Your task to perform on an android device: What's the weather going to be this weekend? Image 0: 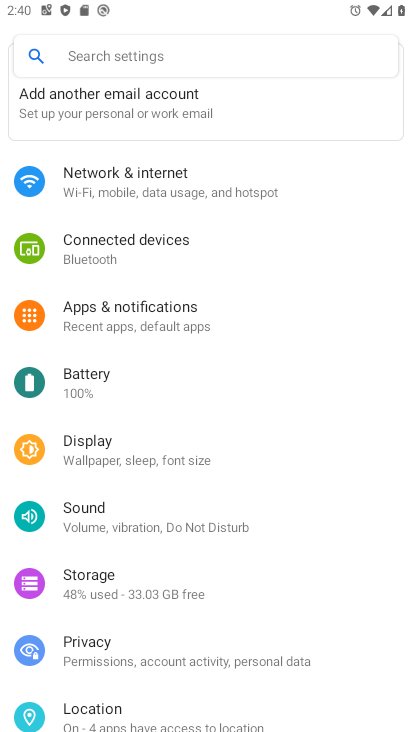
Step 0: press home button
Your task to perform on an android device: What's the weather going to be this weekend? Image 1: 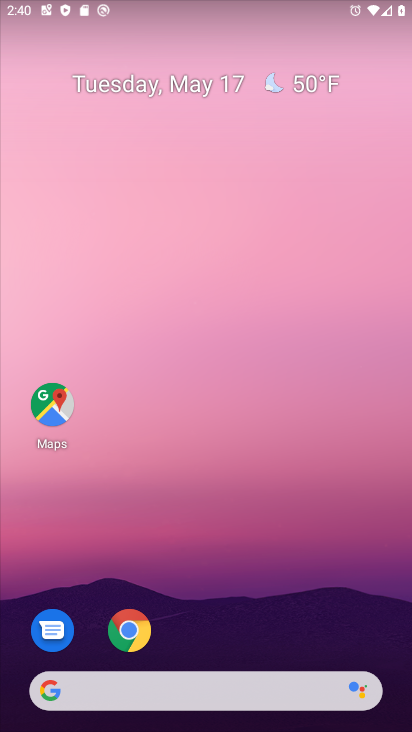
Step 1: click (171, 336)
Your task to perform on an android device: What's the weather going to be this weekend? Image 2: 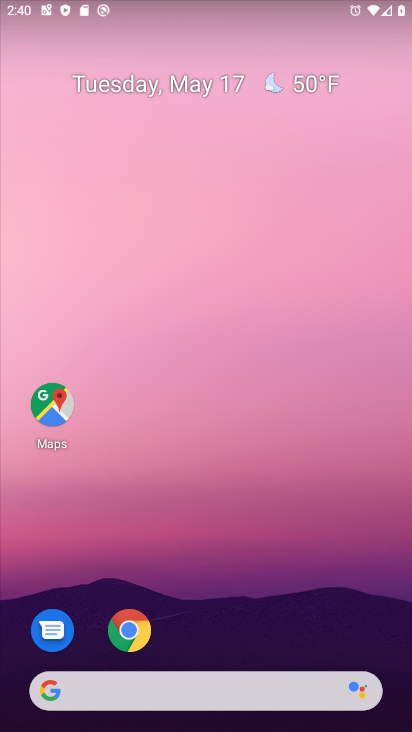
Step 2: drag from (189, 667) to (159, 338)
Your task to perform on an android device: What's the weather going to be this weekend? Image 3: 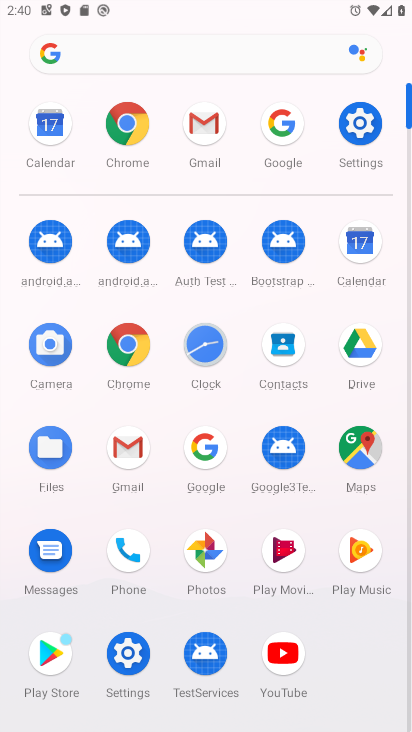
Step 3: click (186, 452)
Your task to perform on an android device: What's the weather going to be this weekend? Image 4: 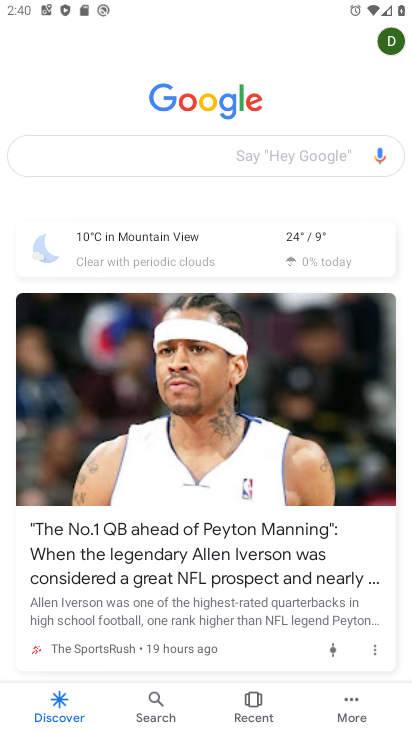
Step 4: click (128, 157)
Your task to perform on an android device: What's the weather going to be this weekend? Image 5: 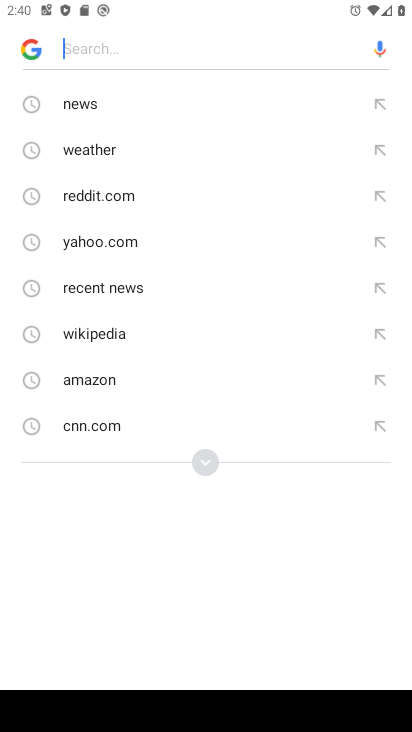
Step 5: click (205, 454)
Your task to perform on an android device: What's the weather going to be this weekend? Image 6: 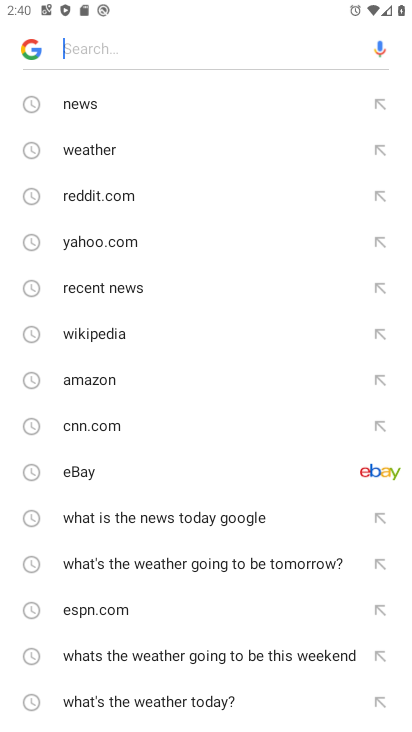
Step 6: click (239, 658)
Your task to perform on an android device: What's the weather going to be this weekend? Image 7: 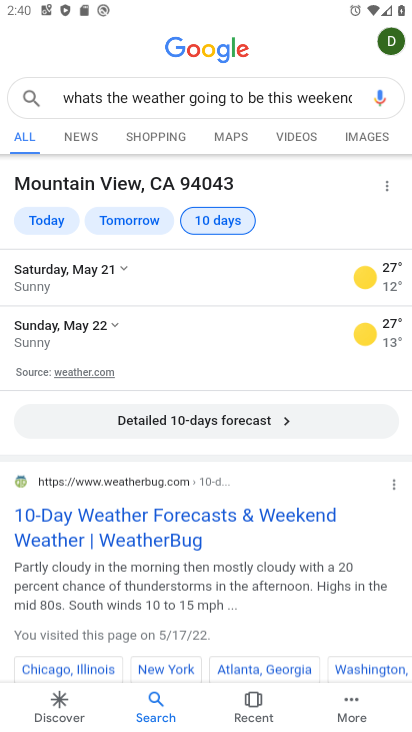
Step 7: click (173, 420)
Your task to perform on an android device: What's the weather going to be this weekend? Image 8: 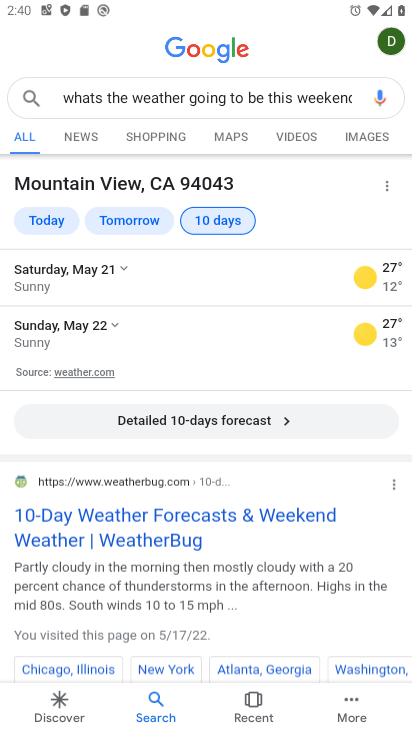
Step 8: click (166, 419)
Your task to perform on an android device: What's the weather going to be this weekend? Image 9: 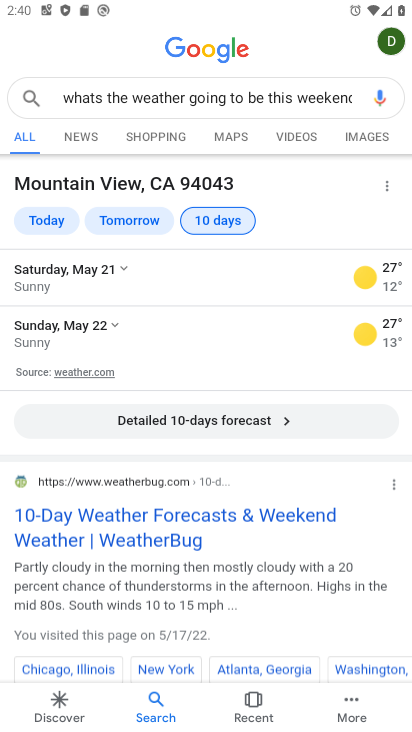
Step 9: click (221, 425)
Your task to perform on an android device: What's the weather going to be this weekend? Image 10: 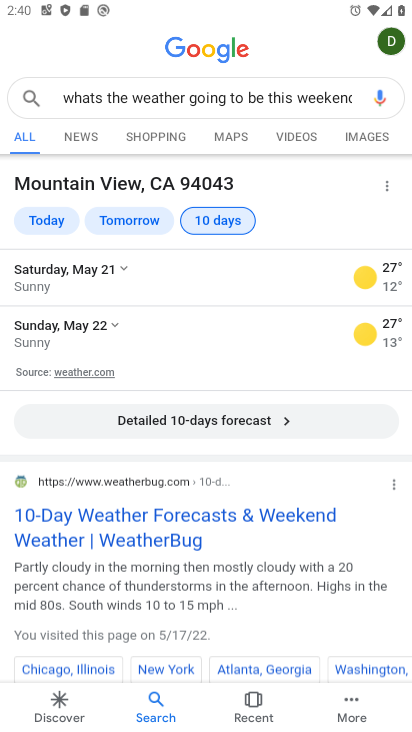
Step 10: drag from (285, 417) to (366, 462)
Your task to perform on an android device: What's the weather going to be this weekend? Image 11: 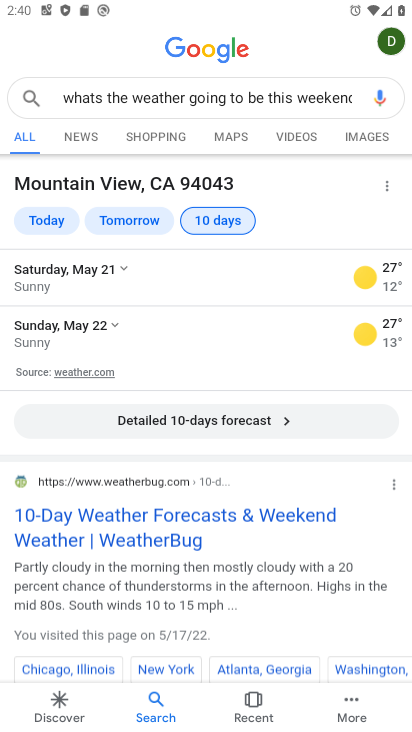
Step 11: click (288, 416)
Your task to perform on an android device: What's the weather going to be this weekend? Image 12: 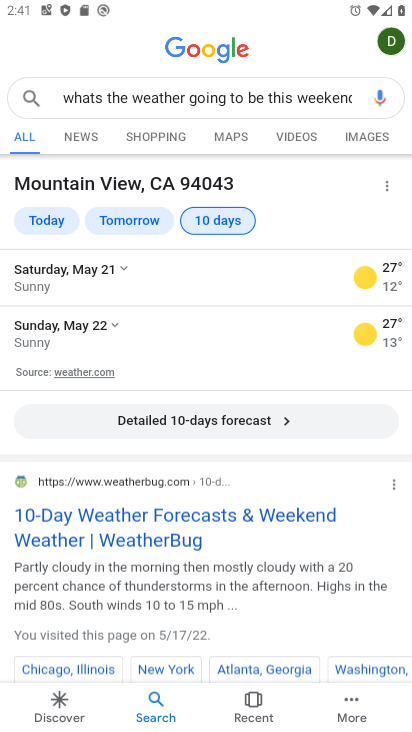
Step 12: click (280, 428)
Your task to perform on an android device: What's the weather going to be this weekend? Image 13: 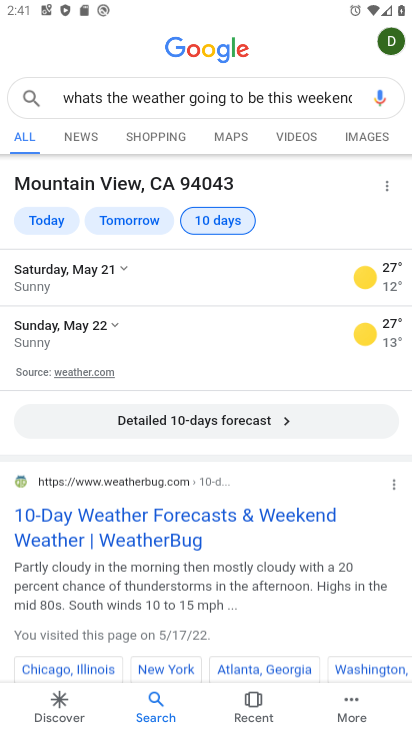
Step 13: task complete